Your task to perform on an android device: Open Youtube and go to "Your channel" Image 0: 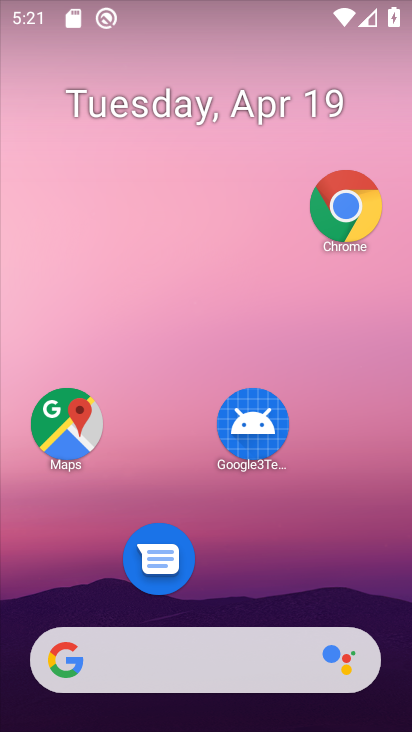
Step 0: drag from (279, 722) to (279, 96)
Your task to perform on an android device: Open Youtube and go to "Your channel" Image 1: 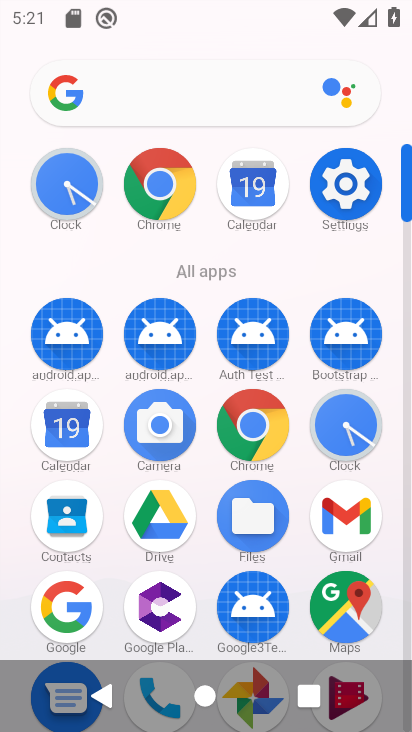
Step 1: drag from (281, 662) to (279, 252)
Your task to perform on an android device: Open Youtube and go to "Your channel" Image 2: 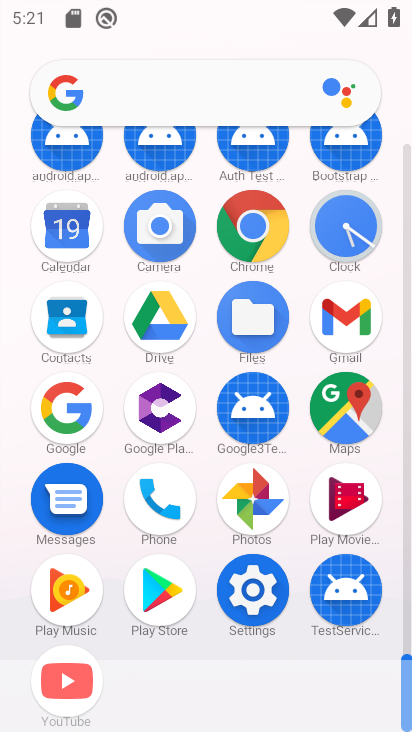
Step 2: click (68, 688)
Your task to perform on an android device: Open Youtube and go to "Your channel" Image 3: 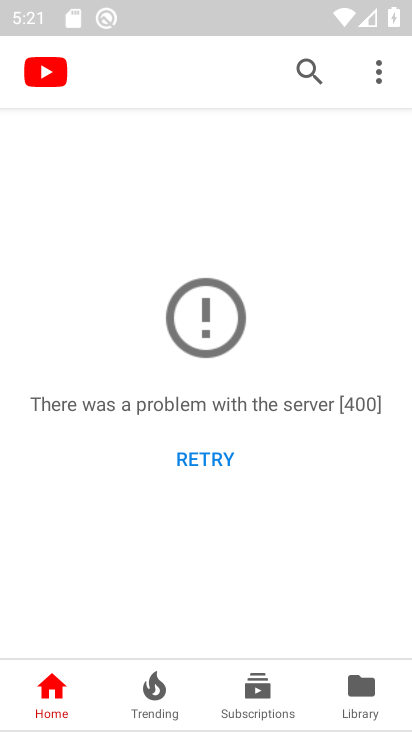
Step 3: task complete